Your task to perform on an android device: allow notifications from all sites in the chrome app Image 0: 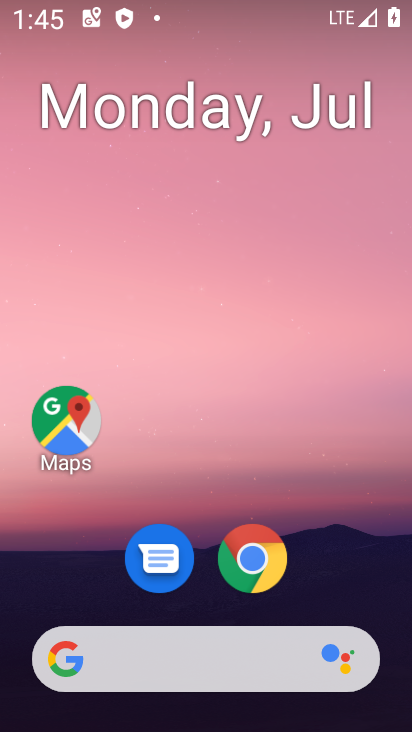
Step 0: drag from (357, 587) to (346, 83)
Your task to perform on an android device: allow notifications from all sites in the chrome app Image 1: 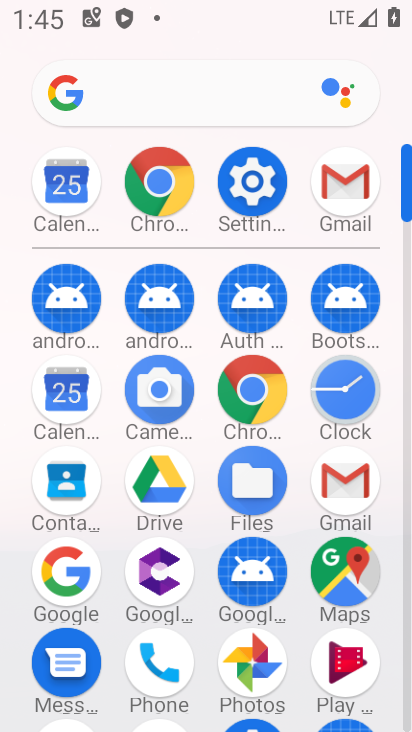
Step 1: click (257, 389)
Your task to perform on an android device: allow notifications from all sites in the chrome app Image 2: 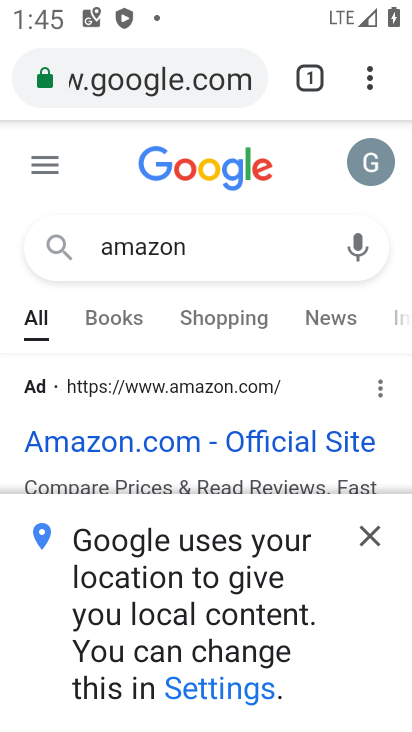
Step 2: click (371, 86)
Your task to perform on an android device: allow notifications from all sites in the chrome app Image 3: 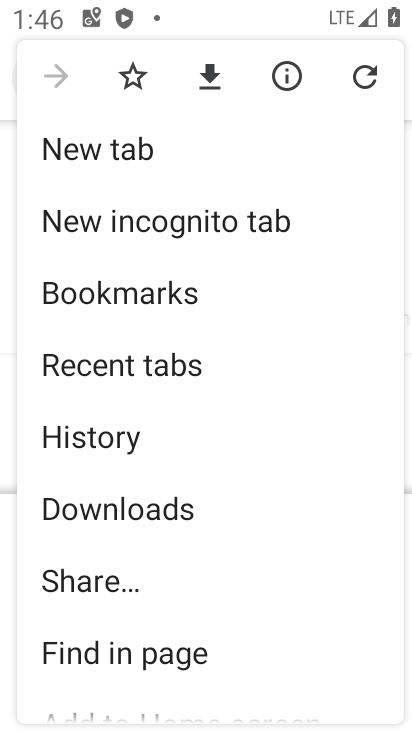
Step 3: drag from (314, 471) to (327, 257)
Your task to perform on an android device: allow notifications from all sites in the chrome app Image 4: 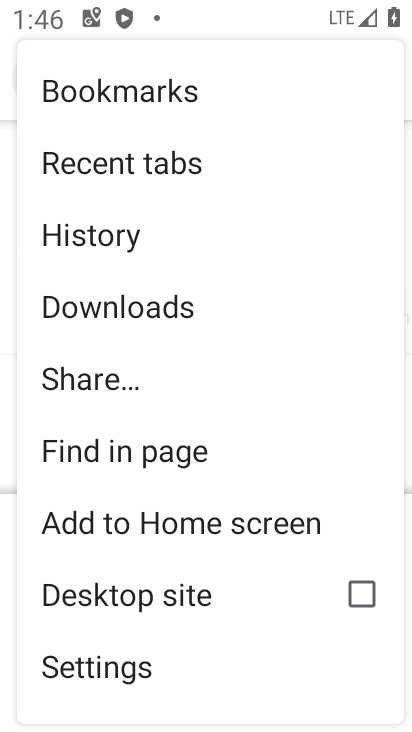
Step 4: drag from (328, 477) to (312, 275)
Your task to perform on an android device: allow notifications from all sites in the chrome app Image 5: 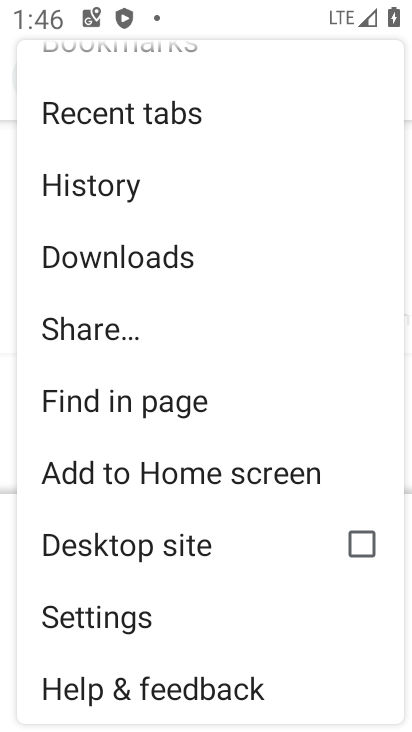
Step 5: click (137, 624)
Your task to perform on an android device: allow notifications from all sites in the chrome app Image 6: 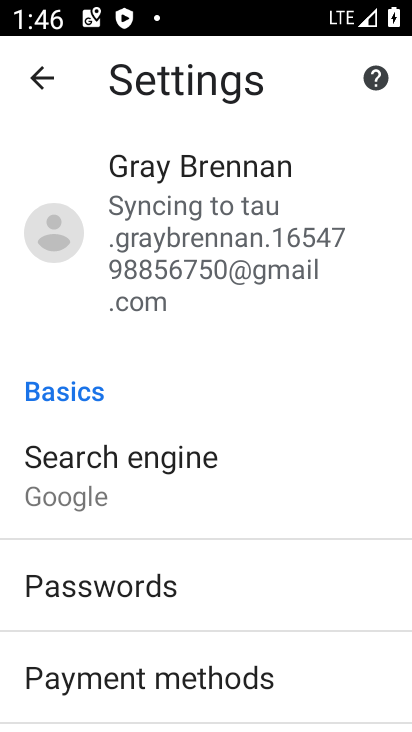
Step 6: drag from (346, 576) to (348, 427)
Your task to perform on an android device: allow notifications from all sites in the chrome app Image 7: 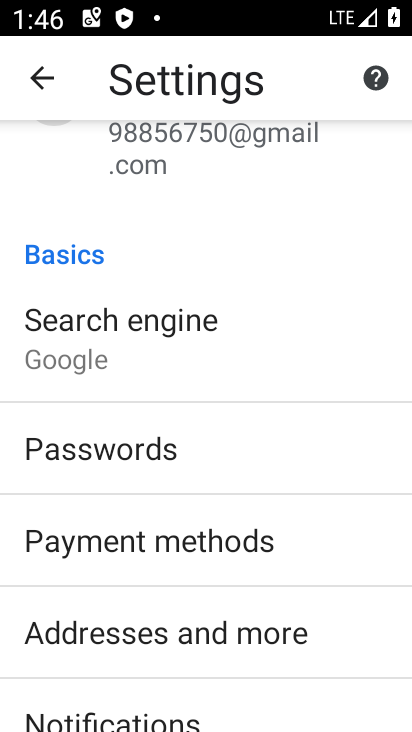
Step 7: drag from (323, 574) to (319, 452)
Your task to perform on an android device: allow notifications from all sites in the chrome app Image 8: 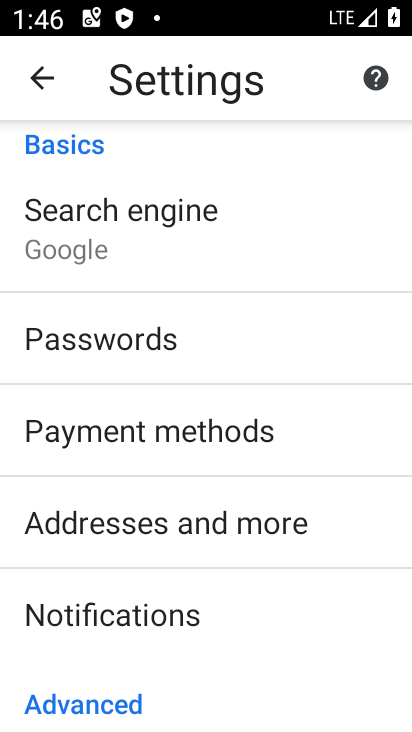
Step 8: drag from (318, 627) to (329, 506)
Your task to perform on an android device: allow notifications from all sites in the chrome app Image 9: 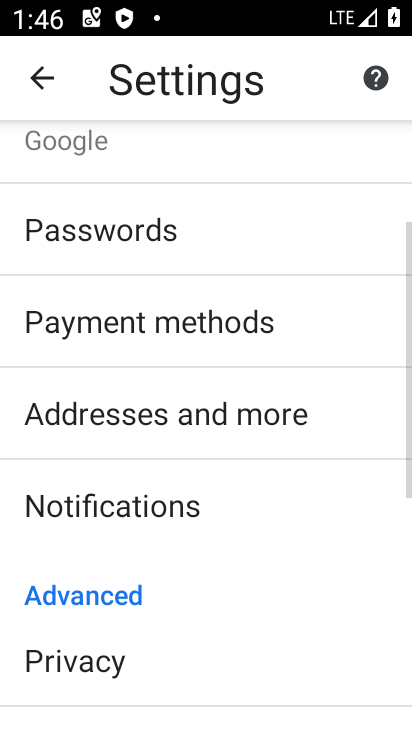
Step 9: drag from (341, 599) to (340, 470)
Your task to perform on an android device: allow notifications from all sites in the chrome app Image 10: 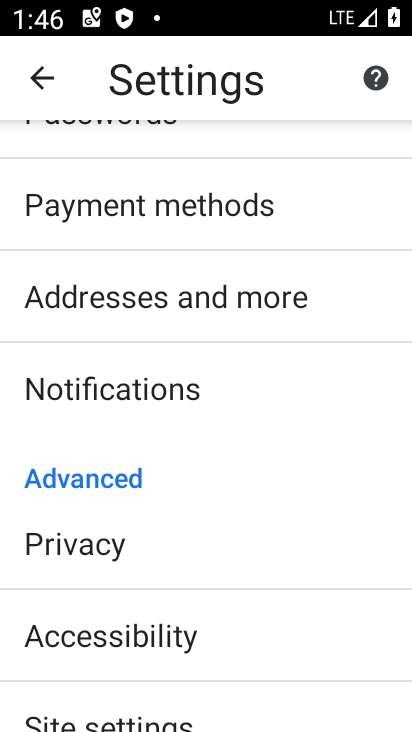
Step 10: drag from (298, 615) to (289, 496)
Your task to perform on an android device: allow notifications from all sites in the chrome app Image 11: 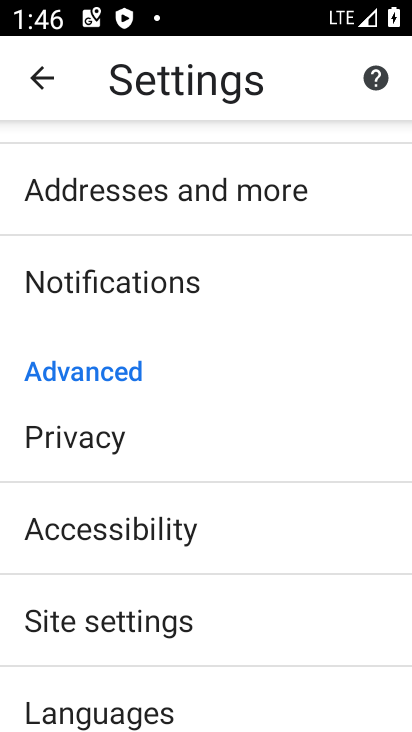
Step 11: drag from (270, 635) to (263, 447)
Your task to perform on an android device: allow notifications from all sites in the chrome app Image 12: 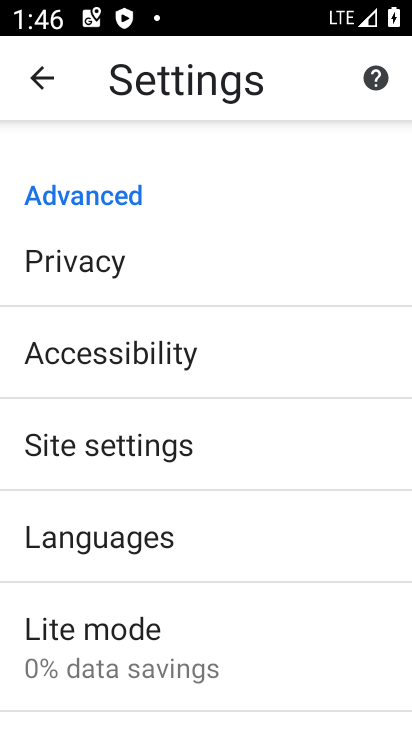
Step 12: drag from (262, 659) to (261, 459)
Your task to perform on an android device: allow notifications from all sites in the chrome app Image 13: 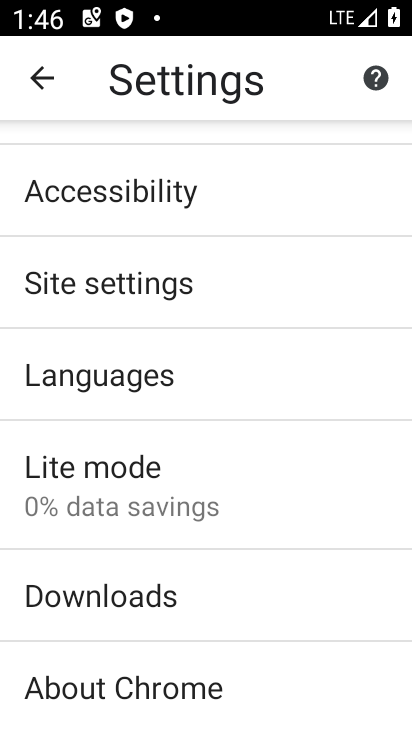
Step 13: drag from (292, 651) to (282, 477)
Your task to perform on an android device: allow notifications from all sites in the chrome app Image 14: 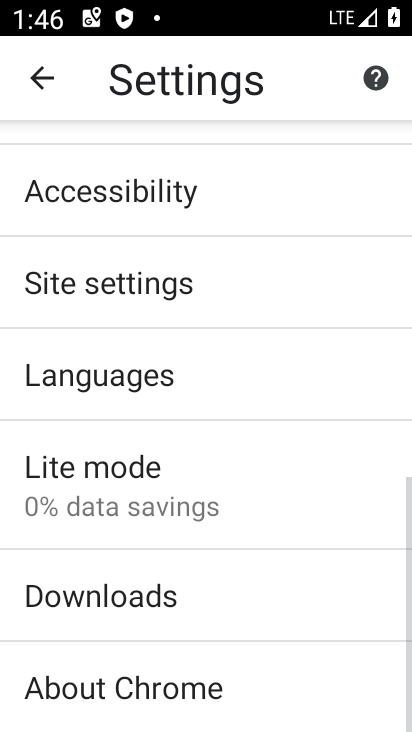
Step 14: drag from (298, 400) to (308, 553)
Your task to perform on an android device: allow notifications from all sites in the chrome app Image 15: 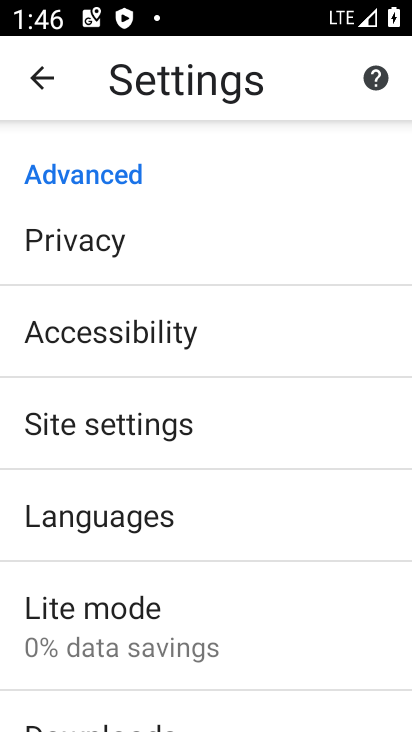
Step 15: click (237, 416)
Your task to perform on an android device: allow notifications from all sites in the chrome app Image 16: 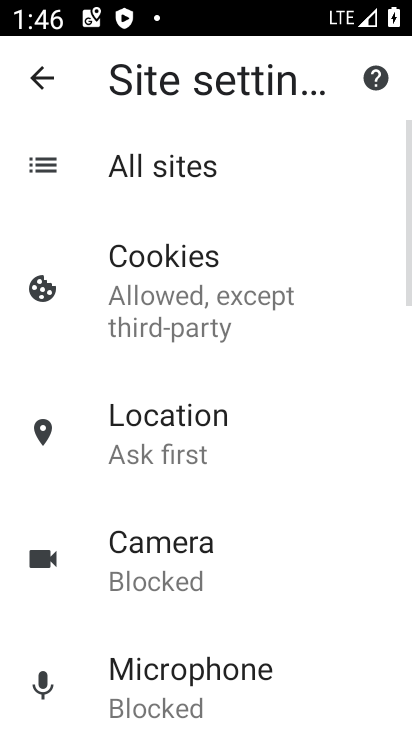
Step 16: drag from (308, 503) to (303, 398)
Your task to perform on an android device: allow notifications from all sites in the chrome app Image 17: 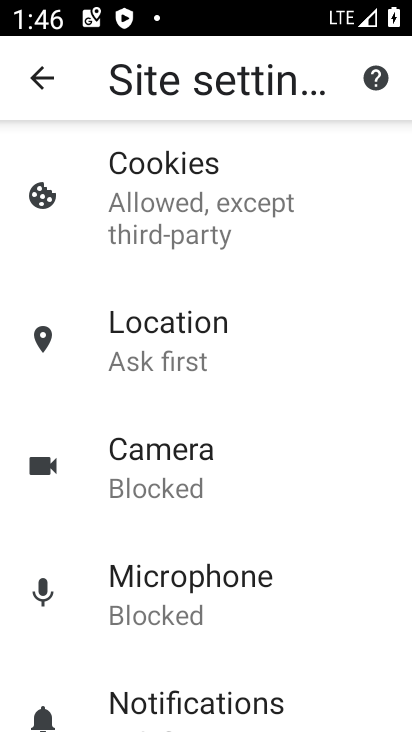
Step 17: drag from (331, 596) to (333, 470)
Your task to perform on an android device: allow notifications from all sites in the chrome app Image 18: 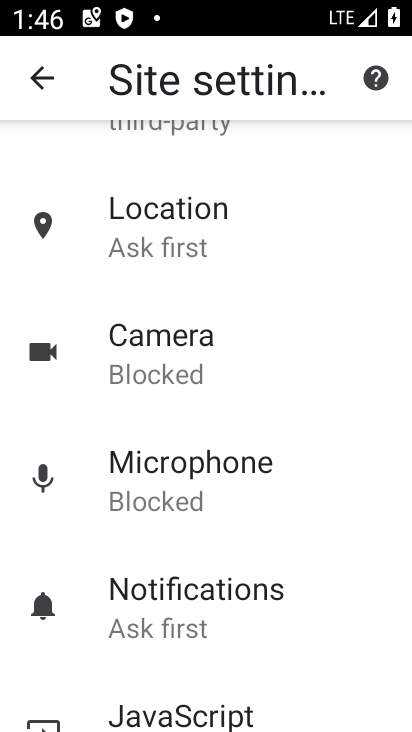
Step 18: drag from (326, 631) to (328, 492)
Your task to perform on an android device: allow notifications from all sites in the chrome app Image 19: 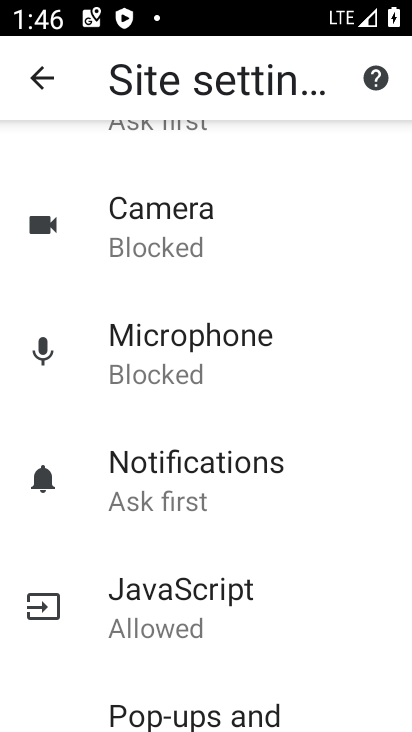
Step 19: drag from (331, 560) to (332, 426)
Your task to perform on an android device: allow notifications from all sites in the chrome app Image 20: 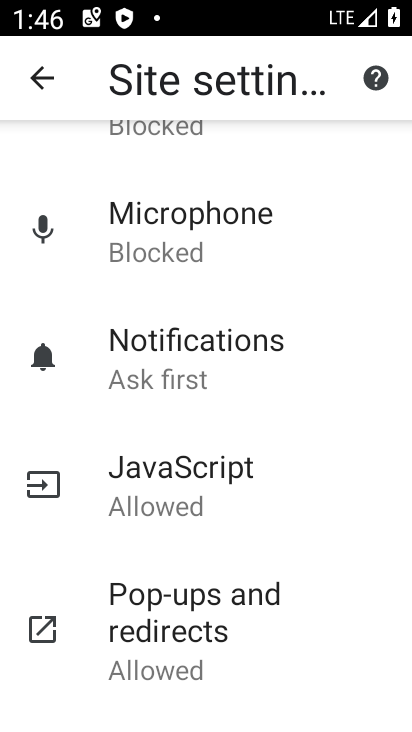
Step 20: drag from (344, 596) to (345, 506)
Your task to perform on an android device: allow notifications from all sites in the chrome app Image 21: 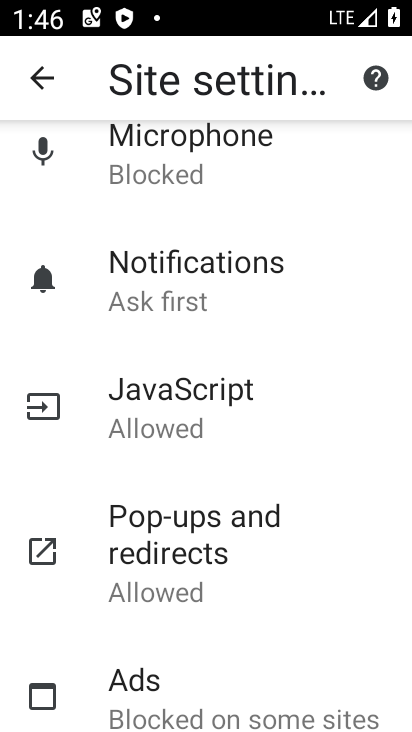
Step 21: click (290, 288)
Your task to perform on an android device: allow notifications from all sites in the chrome app Image 22: 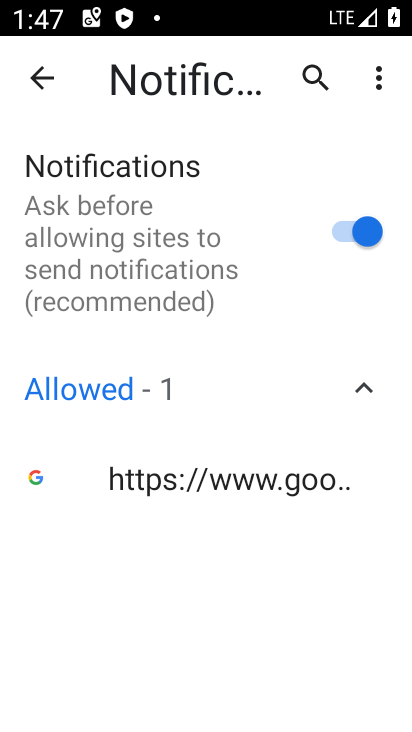
Step 22: task complete